Your task to perform on an android device: Open Google Image 0: 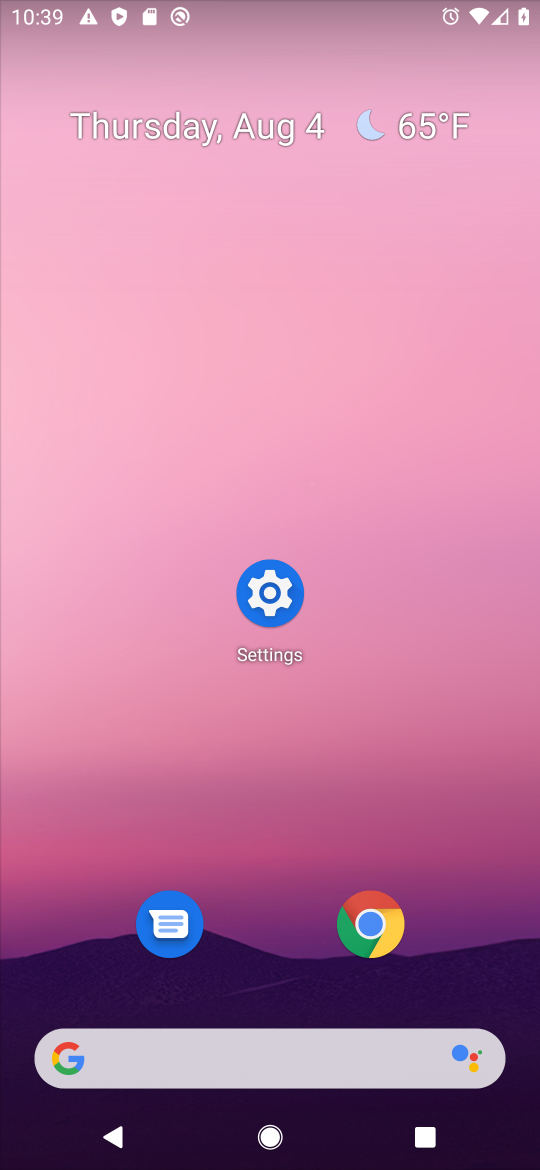
Step 0: press home button
Your task to perform on an android device: Open Google Image 1: 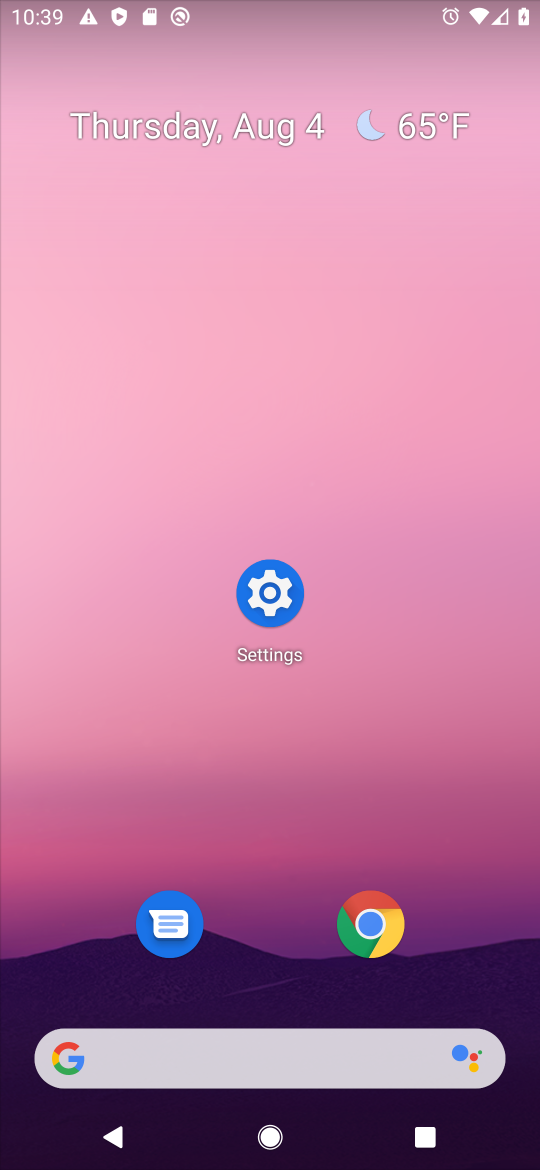
Step 1: drag from (246, 1052) to (328, 140)
Your task to perform on an android device: Open Google Image 2: 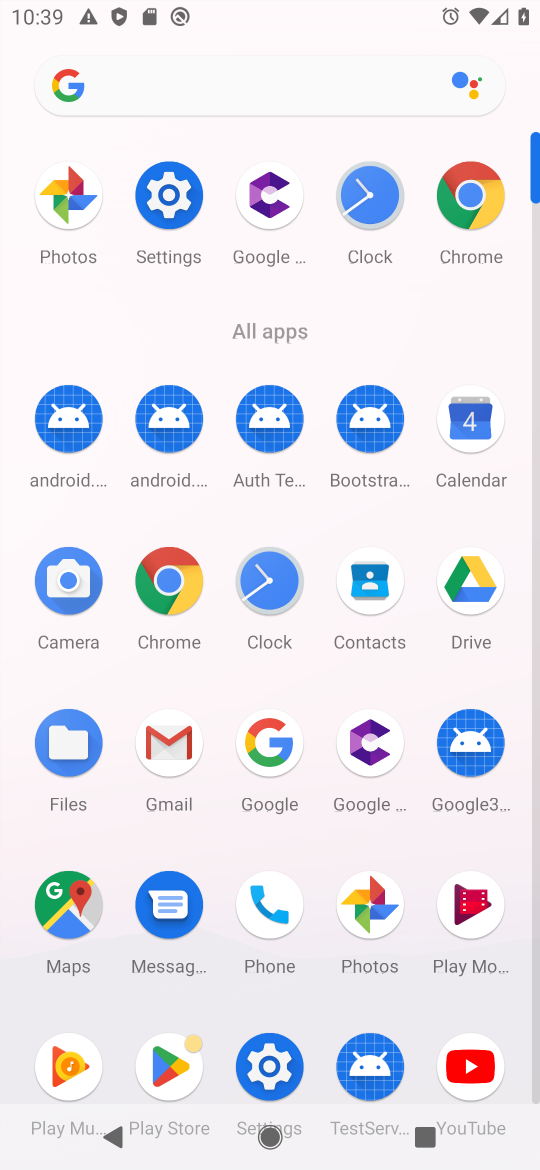
Step 2: click (270, 745)
Your task to perform on an android device: Open Google Image 3: 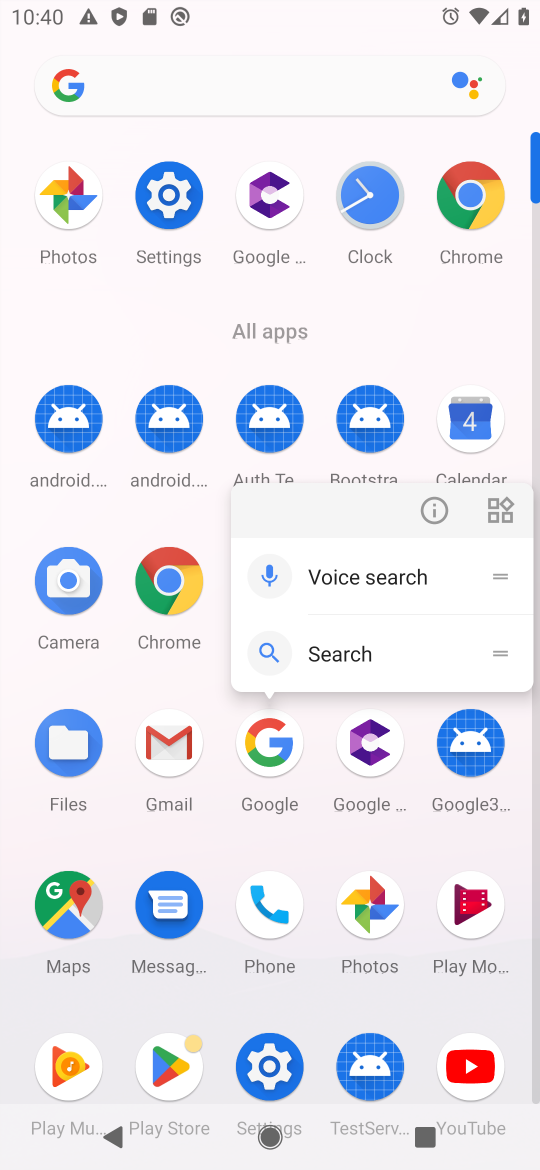
Step 3: click (278, 743)
Your task to perform on an android device: Open Google Image 4: 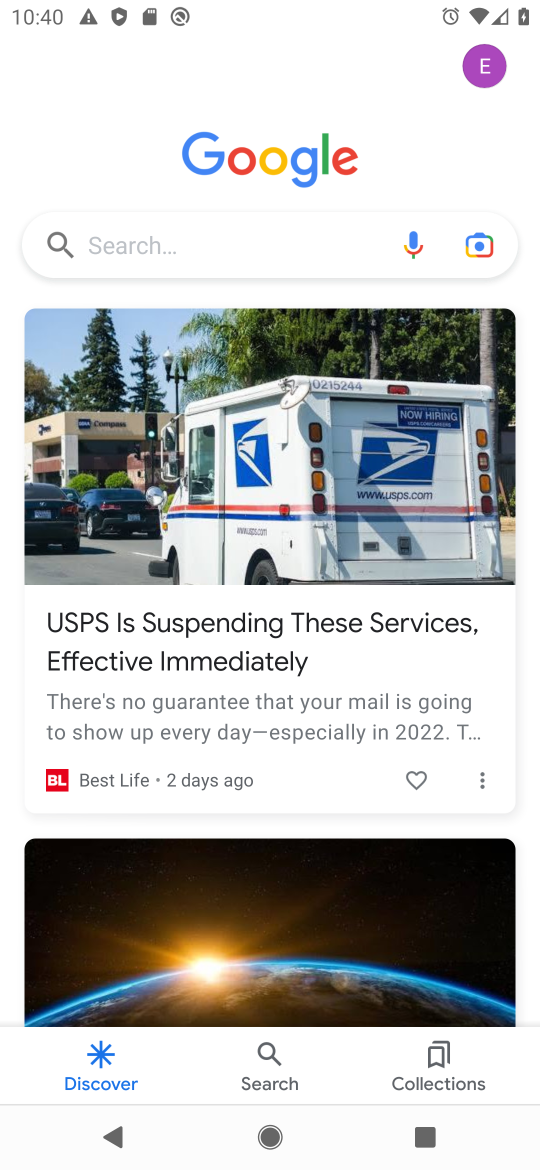
Step 4: task complete